Your task to perform on an android device: Open Google Chrome Image 0: 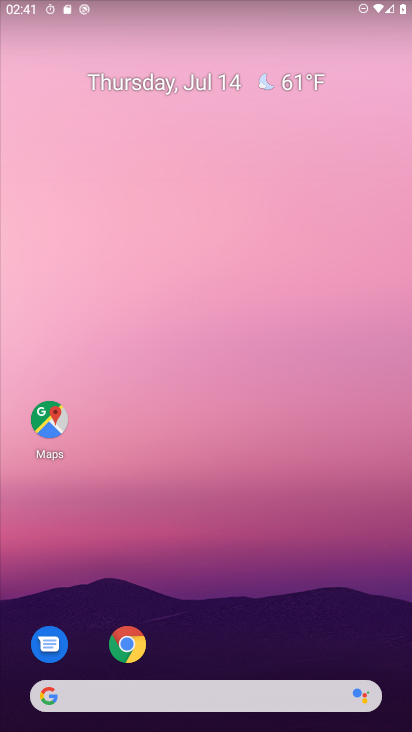
Step 0: click (127, 646)
Your task to perform on an android device: Open Google Chrome Image 1: 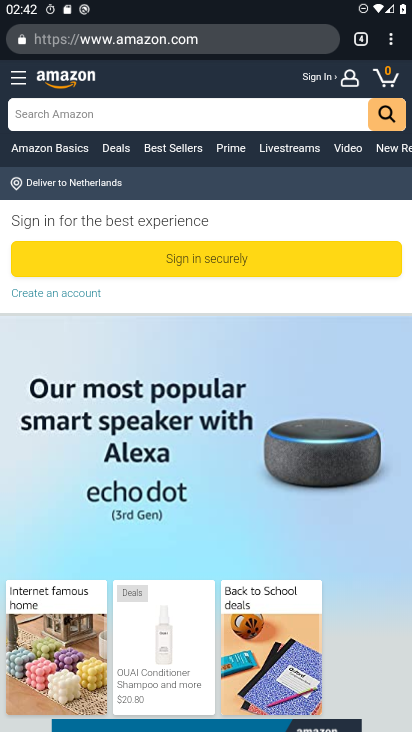
Step 1: task complete